Your task to perform on an android device: turn off notifications in google photos Image 0: 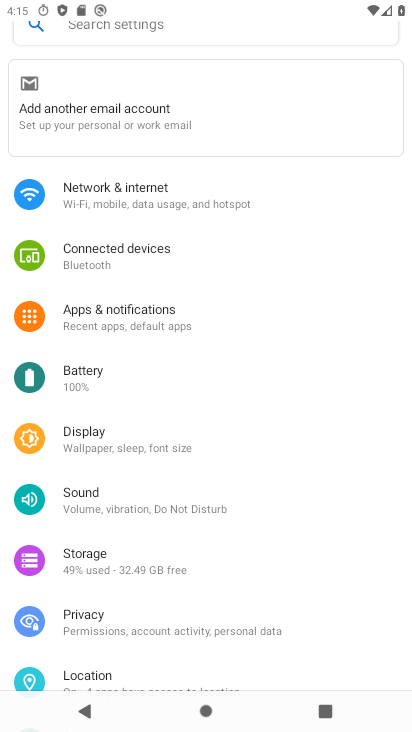
Step 0: press home button
Your task to perform on an android device: turn off notifications in google photos Image 1: 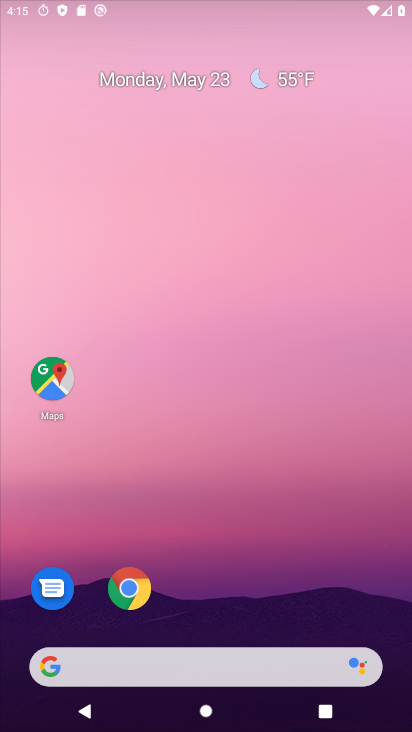
Step 1: drag from (239, 591) to (223, 100)
Your task to perform on an android device: turn off notifications in google photos Image 2: 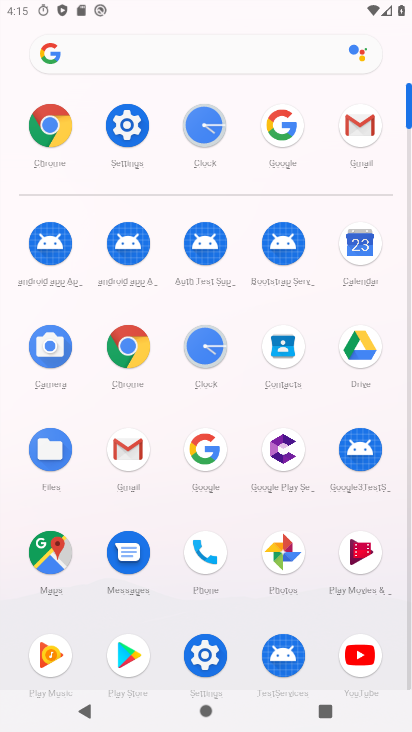
Step 2: click (284, 556)
Your task to perform on an android device: turn off notifications in google photos Image 3: 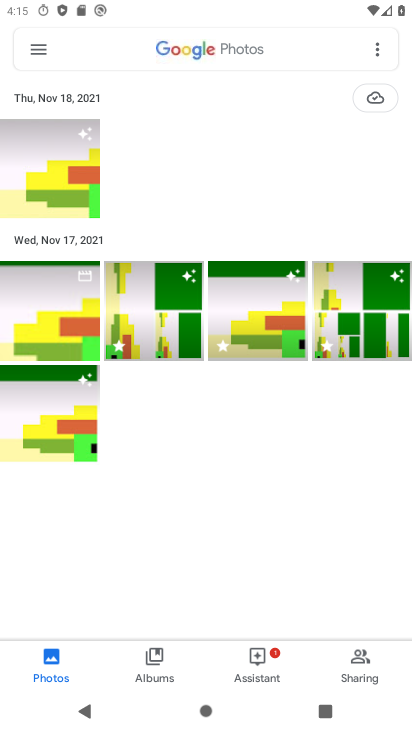
Step 3: click (37, 47)
Your task to perform on an android device: turn off notifications in google photos Image 4: 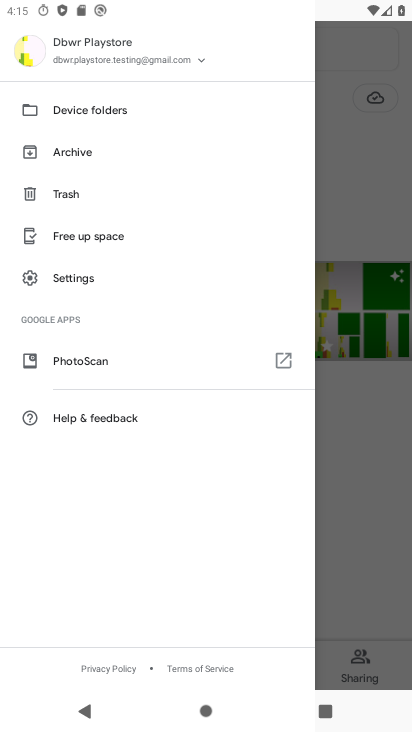
Step 4: click (83, 282)
Your task to perform on an android device: turn off notifications in google photos Image 5: 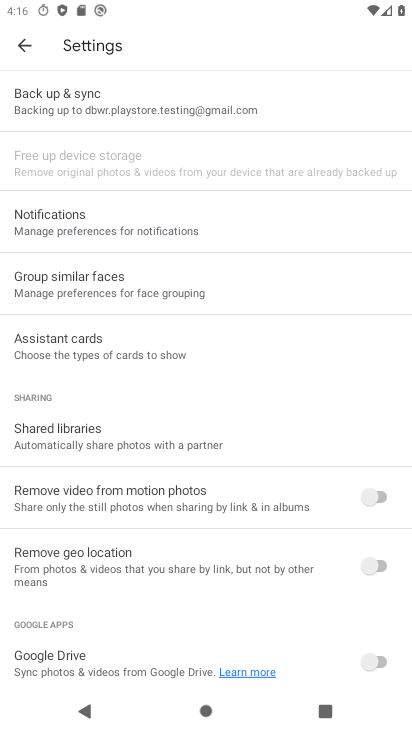
Step 5: click (45, 222)
Your task to perform on an android device: turn off notifications in google photos Image 6: 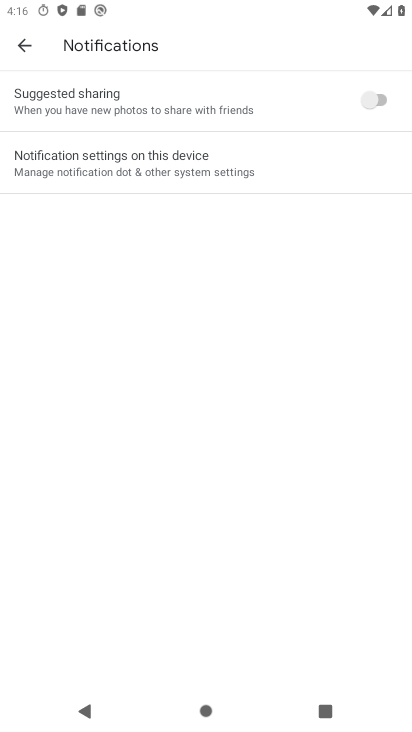
Step 6: click (133, 169)
Your task to perform on an android device: turn off notifications in google photos Image 7: 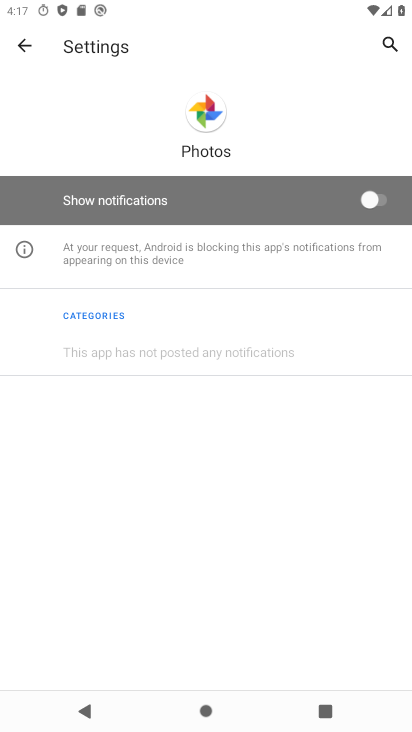
Step 7: task complete